Your task to perform on an android device: turn on javascript in the chrome app Image 0: 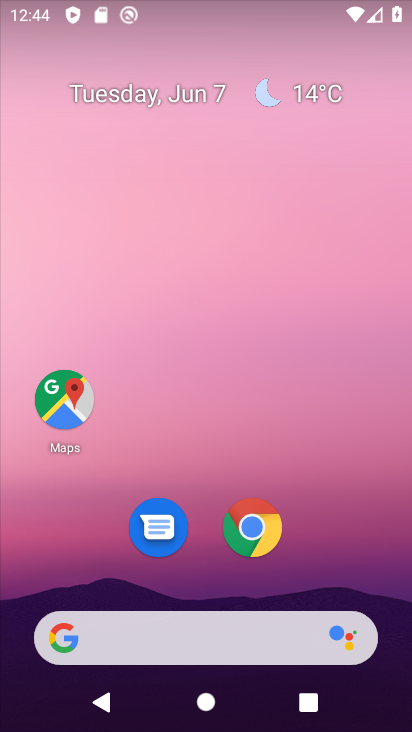
Step 0: click (230, 46)
Your task to perform on an android device: turn on javascript in the chrome app Image 1: 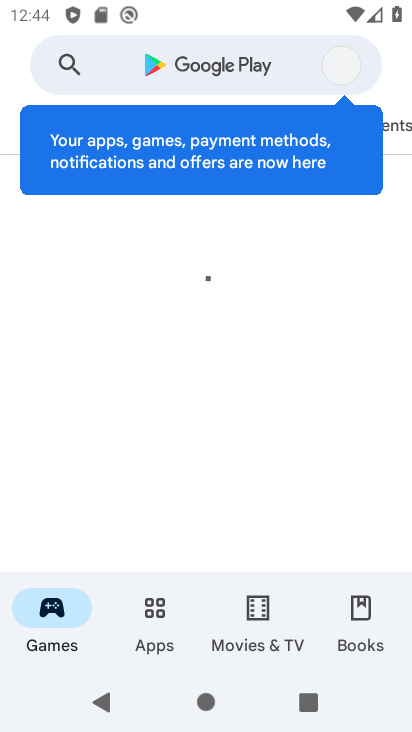
Step 1: press back button
Your task to perform on an android device: turn on javascript in the chrome app Image 2: 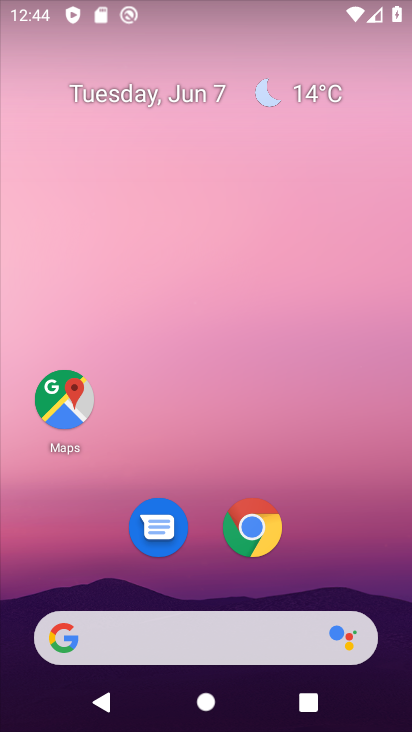
Step 2: click (249, 522)
Your task to perform on an android device: turn on javascript in the chrome app Image 3: 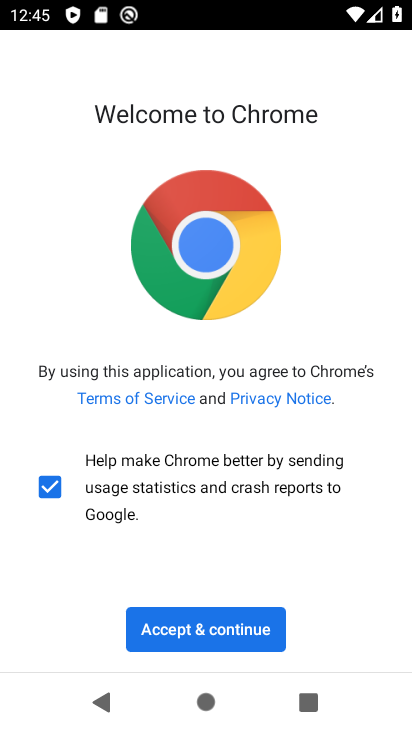
Step 3: click (174, 632)
Your task to perform on an android device: turn on javascript in the chrome app Image 4: 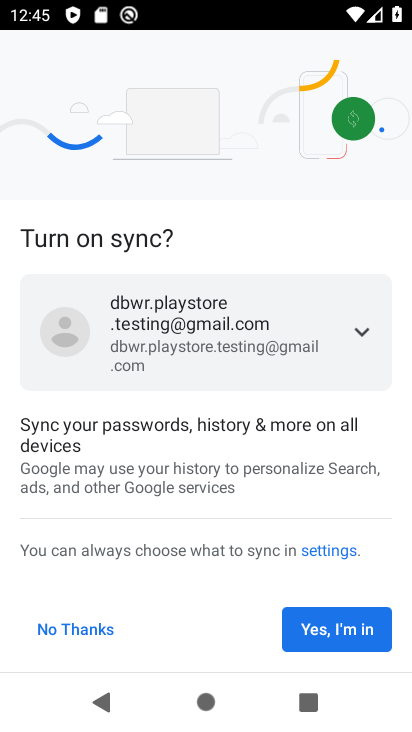
Step 4: click (311, 614)
Your task to perform on an android device: turn on javascript in the chrome app Image 5: 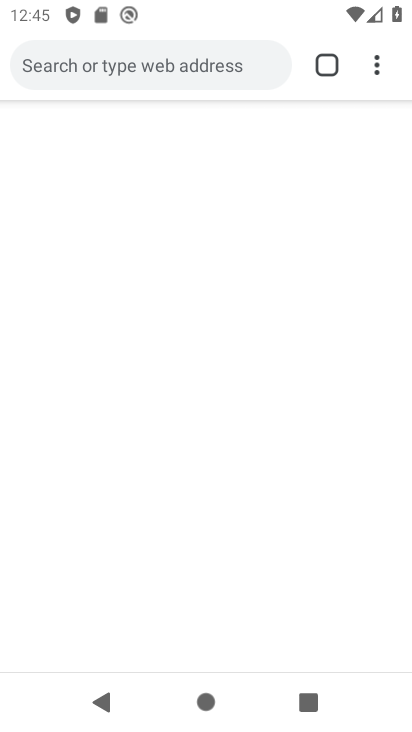
Step 5: drag from (377, 53) to (174, 531)
Your task to perform on an android device: turn on javascript in the chrome app Image 6: 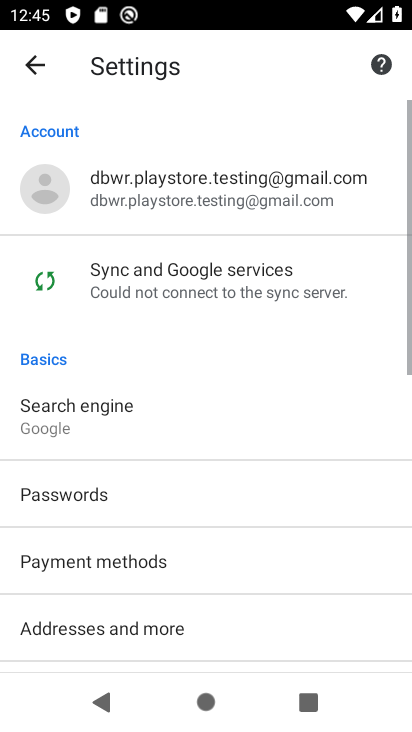
Step 6: drag from (166, 576) to (221, 77)
Your task to perform on an android device: turn on javascript in the chrome app Image 7: 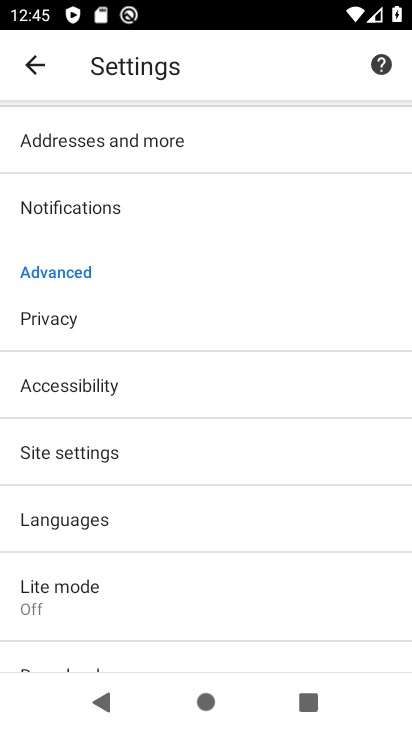
Step 7: click (107, 453)
Your task to perform on an android device: turn on javascript in the chrome app Image 8: 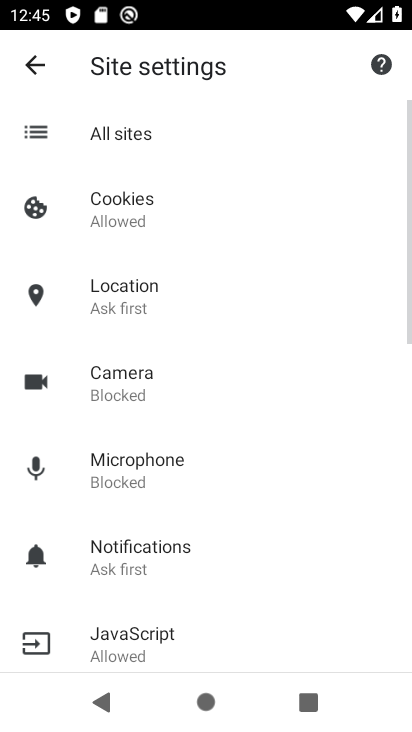
Step 8: click (129, 621)
Your task to perform on an android device: turn on javascript in the chrome app Image 9: 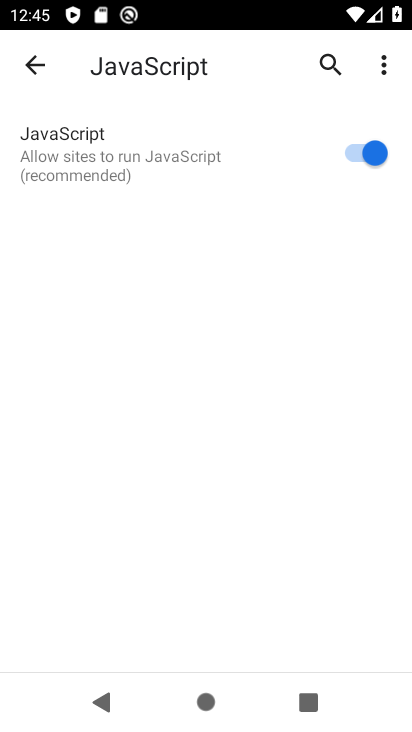
Step 9: task complete